Your task to perform on an android device: Open maps Image 0: 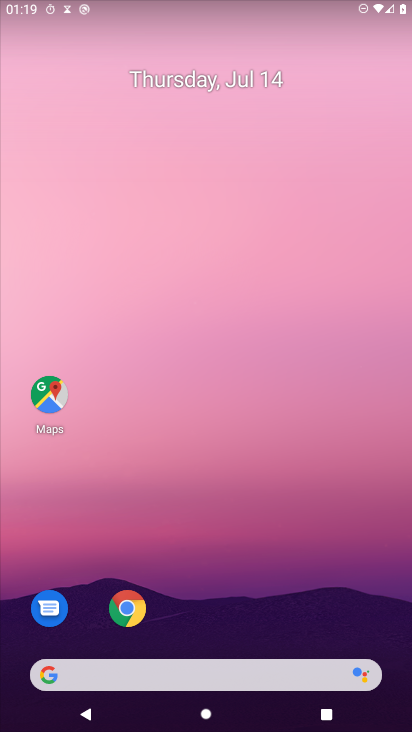
Step 0: press home button
Your task to perform on an android device: Open maps Image 1: 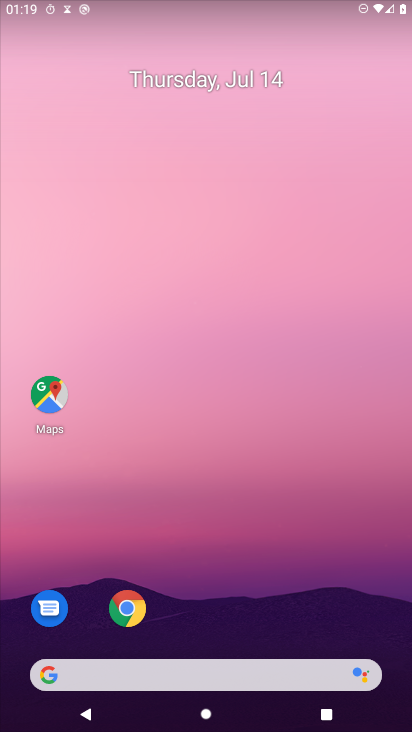
Step 1: drag from (282, 600) to (274, 72)
Your task to perform on an android device: Open maps Image 2: 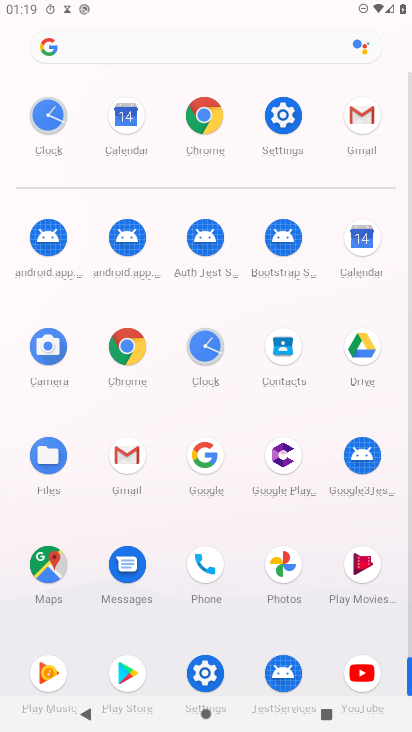
Step 2: click (37, 556)
Your task to perform on an android device: Open maps Image 3: 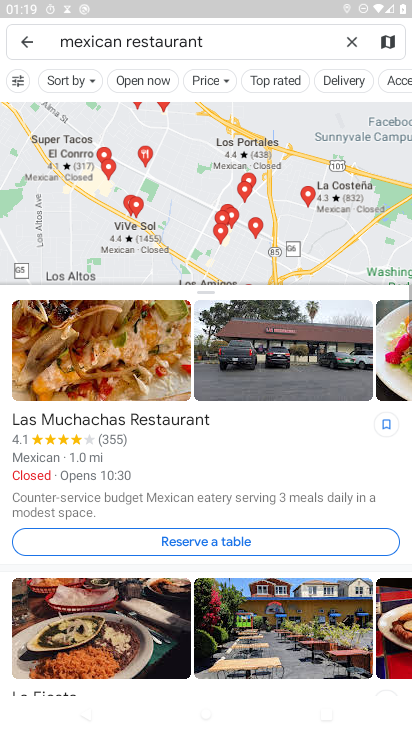
Step 3: click (24, 45)
Your task to perform on an android device: Open maps Image 4: 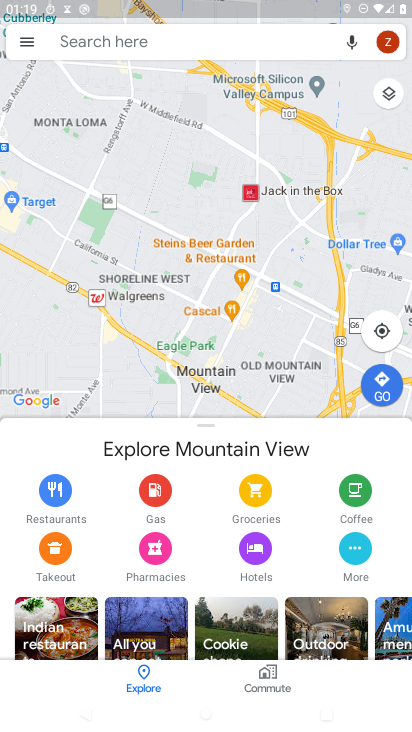
Step 4: task complete